Your task to perform on an android device: turn vacation reply on in the gmail app Image 0: 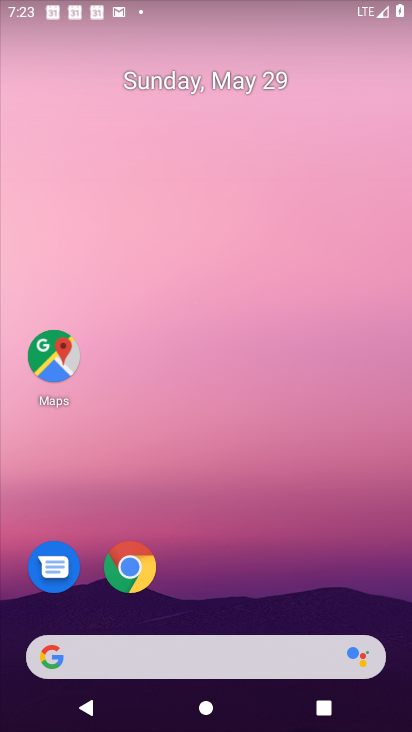
Step 0: drag from (185, 598) to (185, 288)
Your task to perform on an android device: turn vacation reply on in the gmail app Image 1: 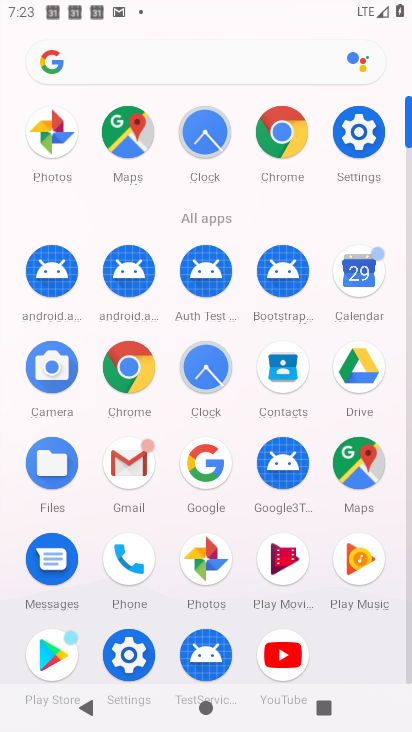
Step 1: click (128, 456)
Your task to perform on an android device: turn vacation reply on in the gmail app Image 2: 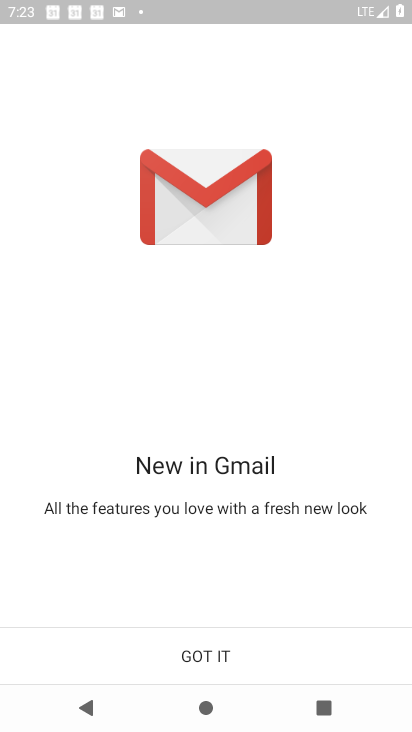
Step 2: click (221, 649)
Your task to perform on an android device: turn vacation reply on in the gmail app Image 3: 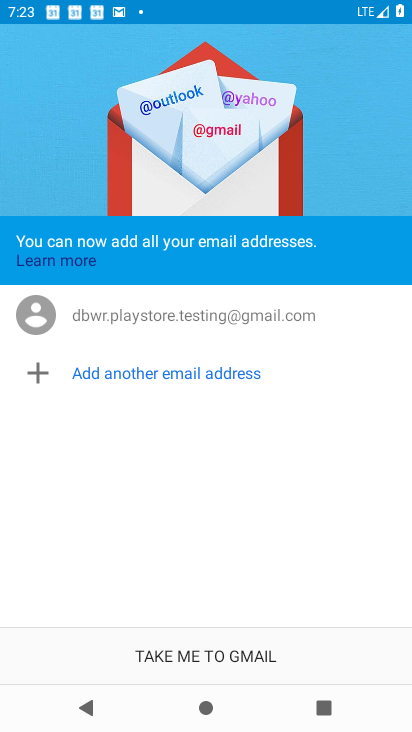
Step 3: click (221, 648)
Your task to perform on an android device: turn vacation reply on in the gmail app Image 4: 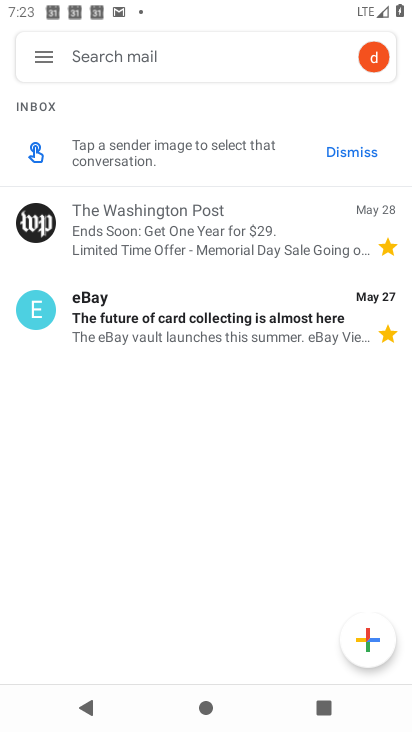
Step 4: click (45, 54)
Your task to perform on an android device: turn vacation reply on in the gmail app Image 5: 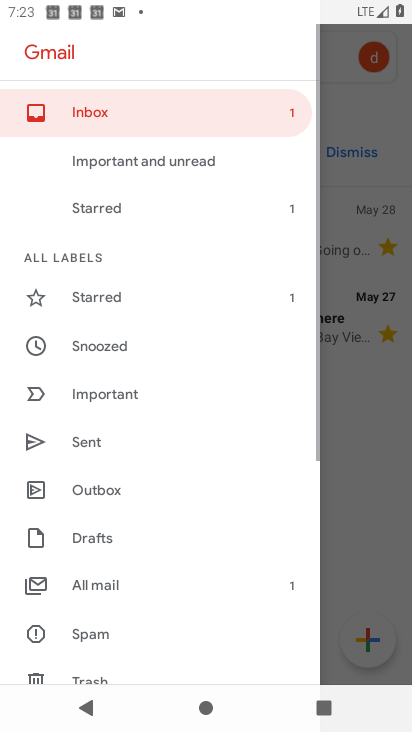
Step 5: drag from (106, 634) to (112, 271)
Your task to perform on an android device: turn vacation reply on in the gmail app Image 6: 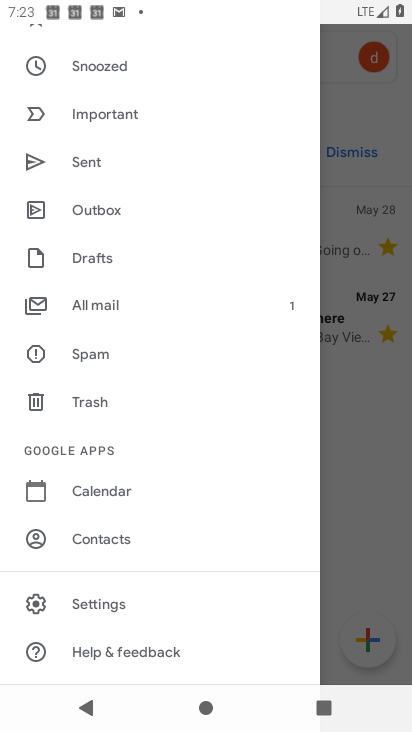
Step 6: click (104, 600)
Your task to perform on an android device: turn vacation reply on in the gmail app Image 7: 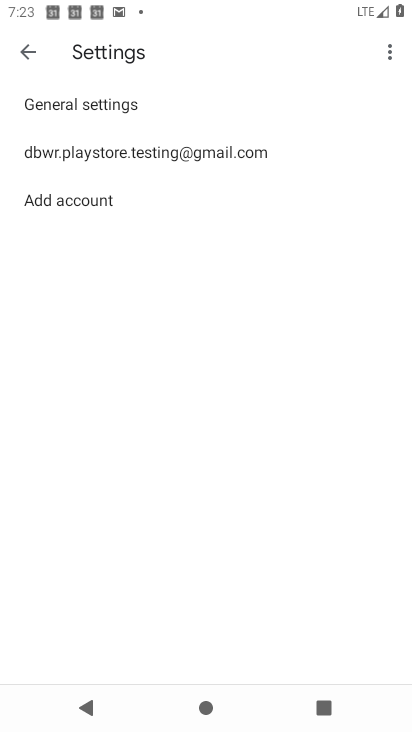
Step 7: click (108, 147)
Your task to perform on an android device: turn vacation reply on in the gmail app Image 8: 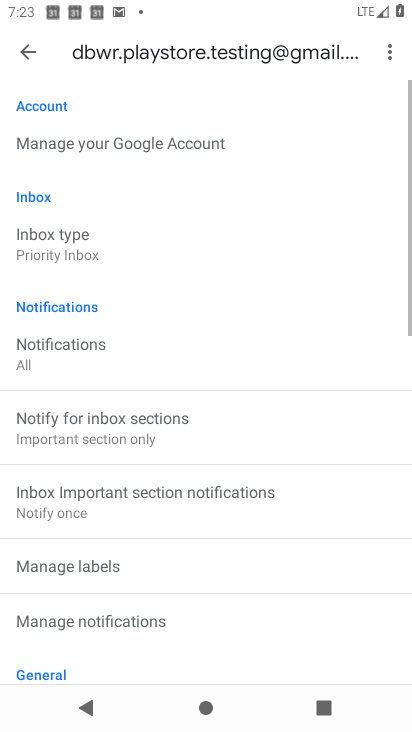
Step 8: drag from (194, 571) to (218, 184)
Your task to perform on an android device: turn vacation reply on in the gmail app Image 9: 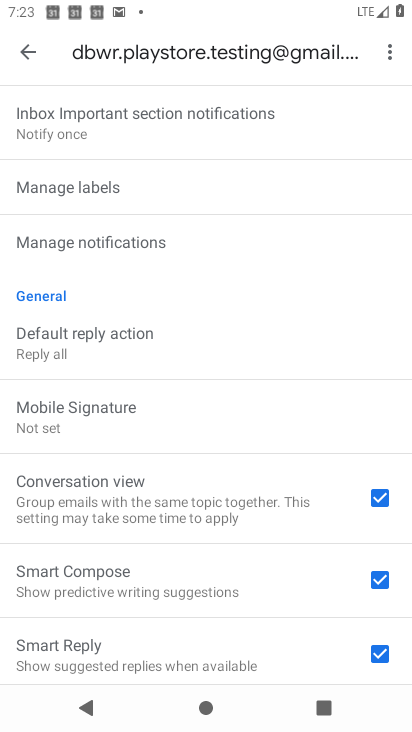
Step 9: drag from (132, 631) to (107, 246)
Your task to perform on an android device: turn vacation reply on in the gmail app Image 10: 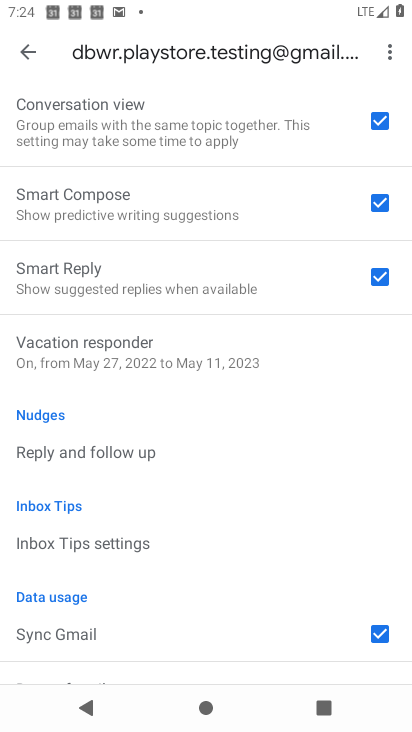
Step 10: click (158, 362)
Your task to perform on an android device: turn vacation reply on in the gmail app Image 11: 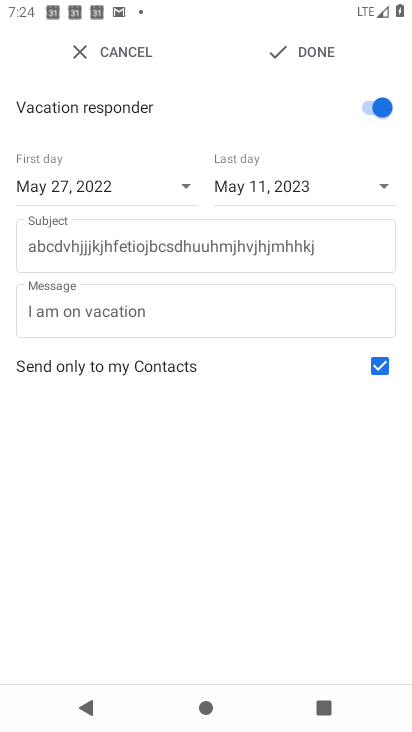
Step 11: task complete